Your task to perform on an android device: Empty the shopping cart on newegg. Add macbook air to the cart on newegg Image 0: 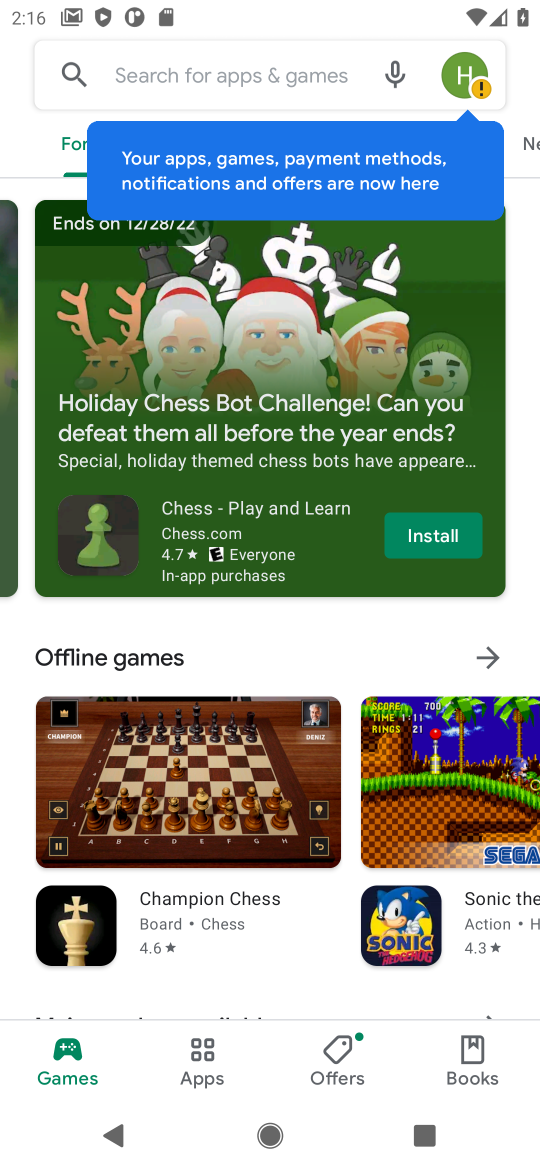
Step 0: task complete